Your task to perform on an android device: open chrome and create a bookmark for the current page Image 0: 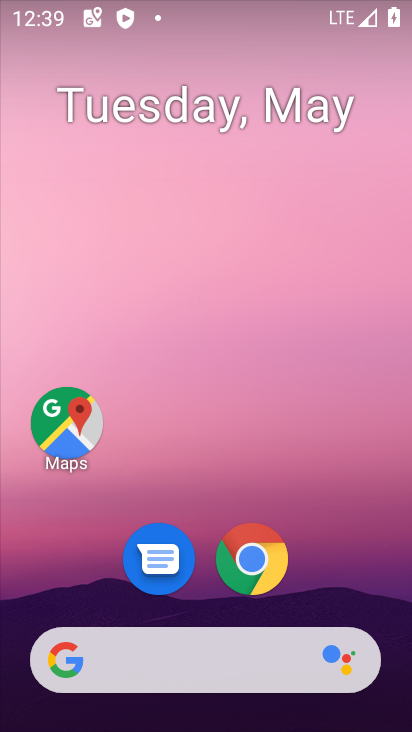
Step 0: drag from (361, 557) to (301, 6)
Your task to perform on an android device: open chrome and create a bookmark for the current page Image 1: 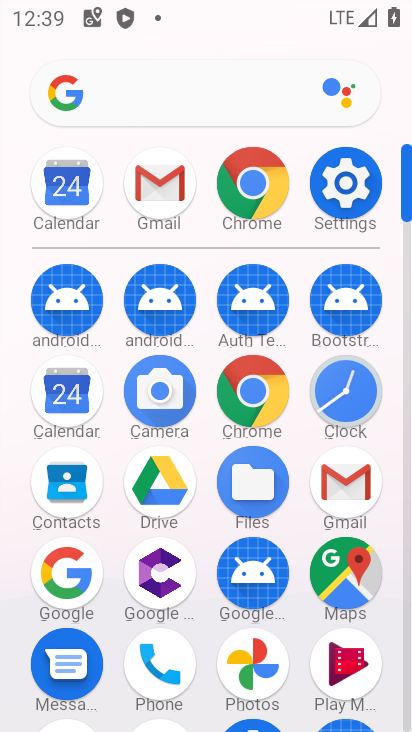
Step 1: click (254, 191)
Your task to perform on an android device: open chrome and create a bookmark for the current page Image 2: 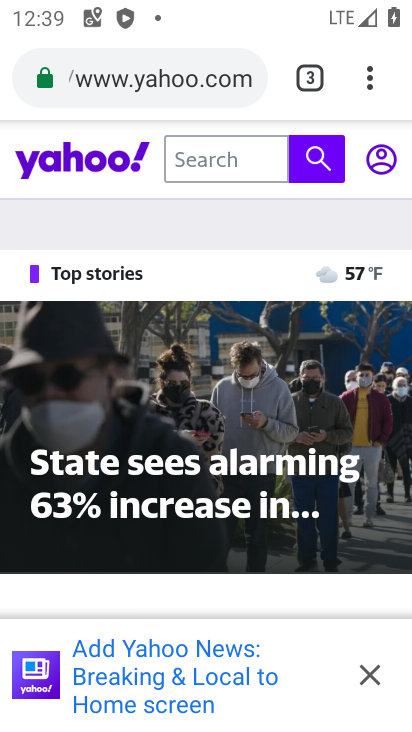
Step 2: click (356, 81)
Your task to perform on an android device: open chrome and create a bookmark for the current page Image 3: 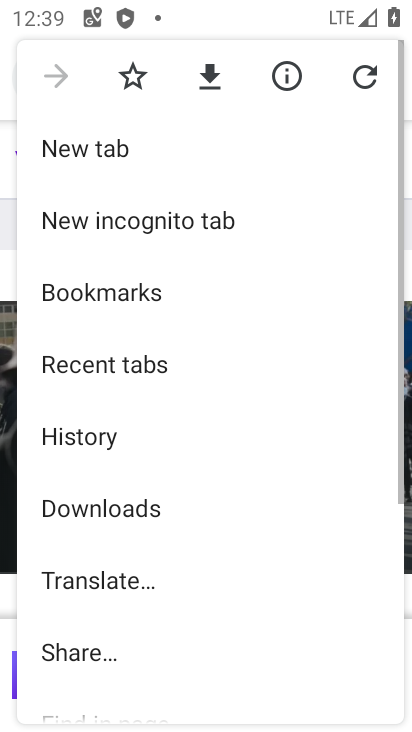
Step 3: click (133, 82)
Your task to perform on an android device: open chrome and create a bookmark for the current page Image 4: 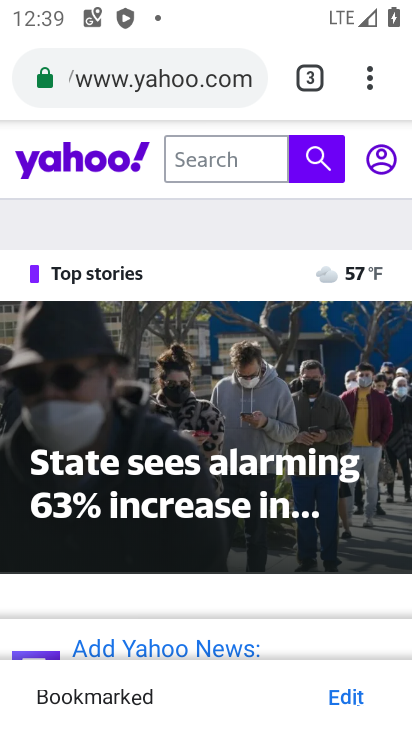
Step 4: task complete